Your task to perform on an android device: turn vacation reply on in the gmail app Image 0: 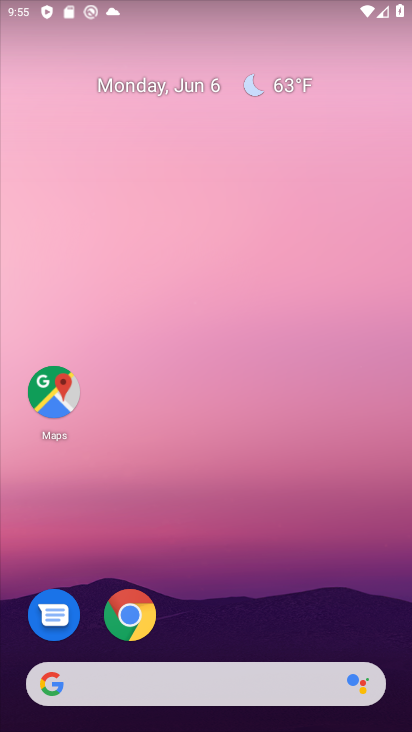
Step 0: press home button
Your task to perform on an android device: turn vacation reply on in the gmail app Image 1: 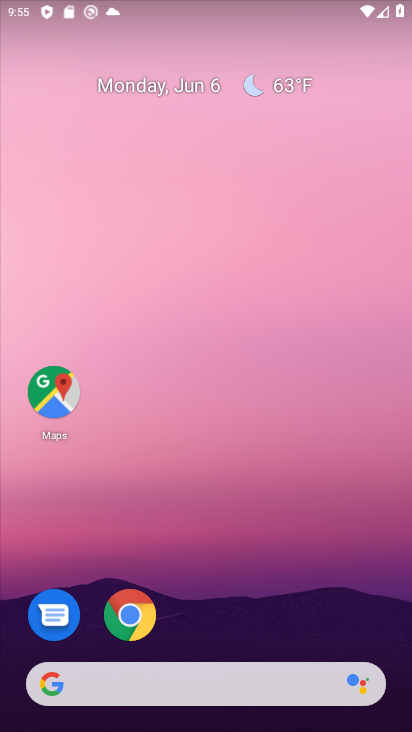
Step 1: drag from (203, 633) to (203, 103)
Your task to perform on an android device: turn vacation reply on in the gmail app Image 2: 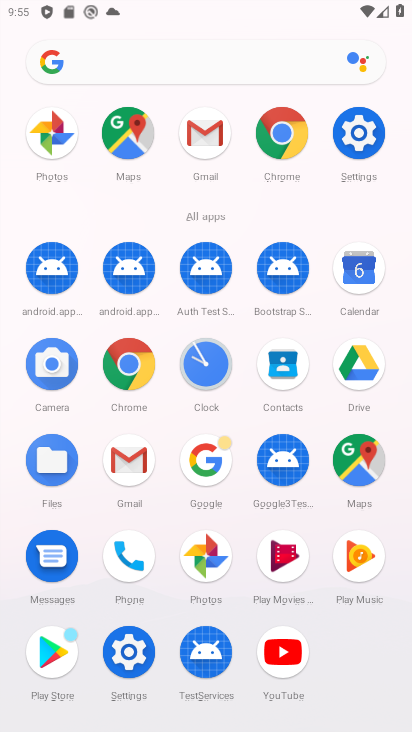
Step 2: click (124, 448)
Your task to perform on an android device: turn vacation reply on in the gmail app Image 3: 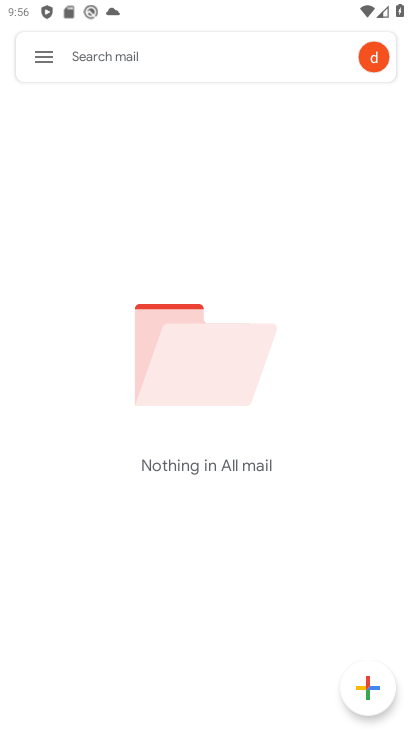
Step 3: click (39, 53)
Your task to perform on an android device: turn vacation reply on in the gmail app Image 4: 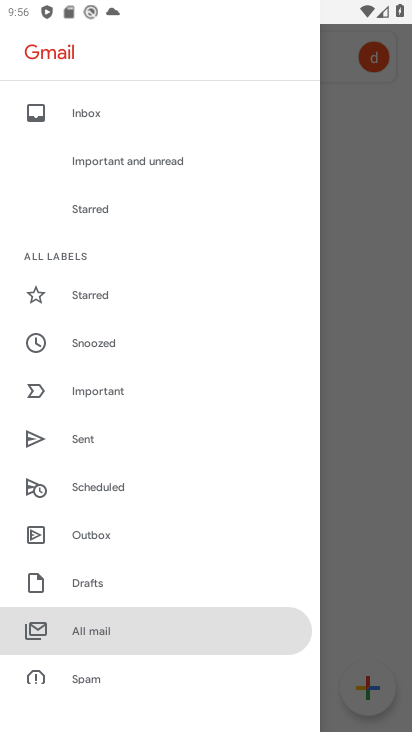
Step 4: drag from (154, 591) to (133, 152)
Your task to perform on an android device: turn vacation reply on in the gmail app Image 5: 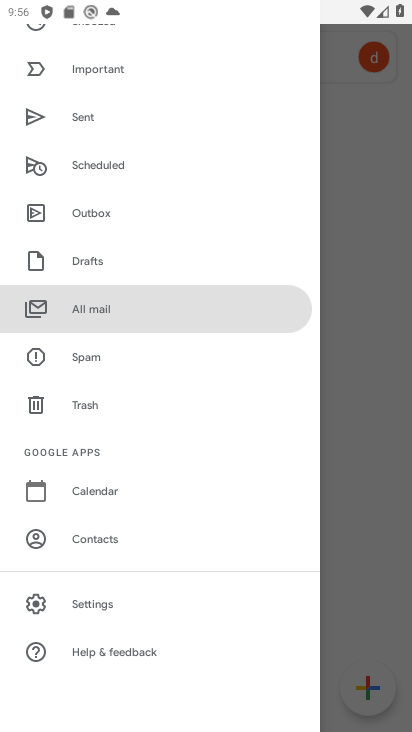
Step 5: drag from (126, 575) to (119, 401)
Your task to perform on an android device: turn vacation reply on in the gmail app Image 6: 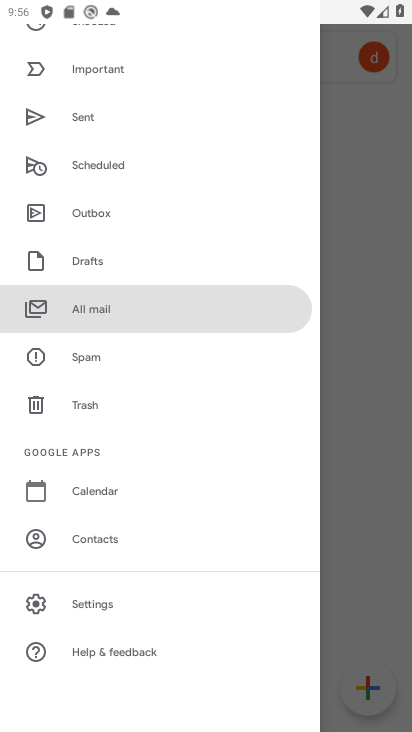
Step 6: click (119, 602)
Your task to perform on an android device: turn vacation reply on in the gmail app Image 7: 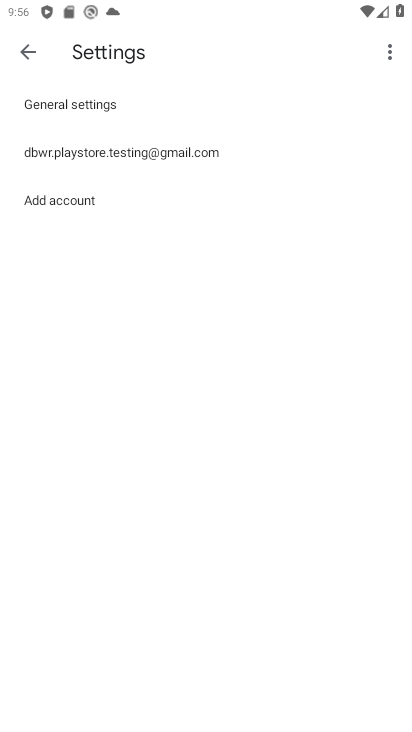
Step 7: click (225, 148)
Your task to perform on an android device: turn vacation reply on in the gmail app Image 8: 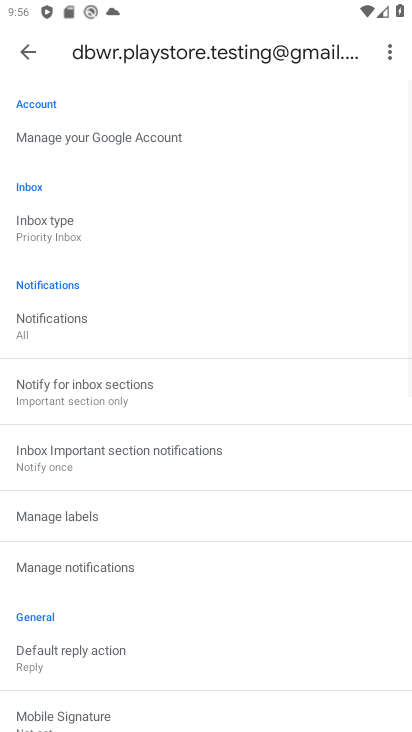
Step 8: drag from (217, 655) to (256, 195)
Your task to perform on an android device: turn vacation reply on in the gmail app Image 9: 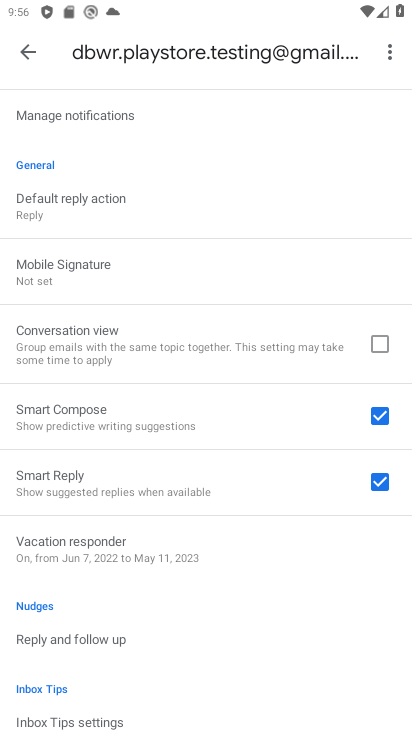
Step 9: click (178, 544)
Your task to perform on an android device: turn vacation reply on in the gmail app Image 10: 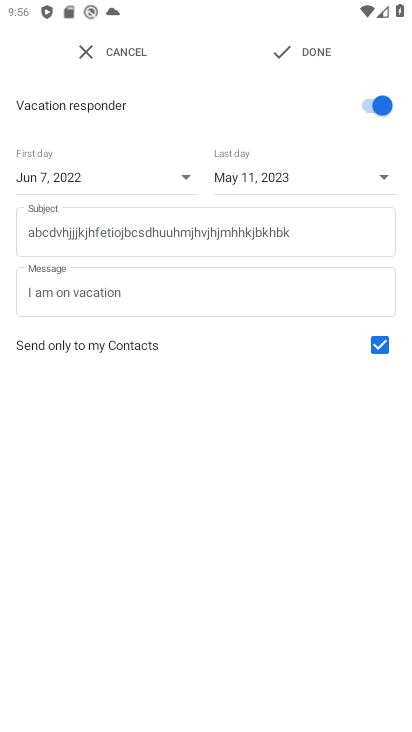
Step 10: task complete